Your task to perform on an android device: Open the calendar and show me this week's events? Image 0: 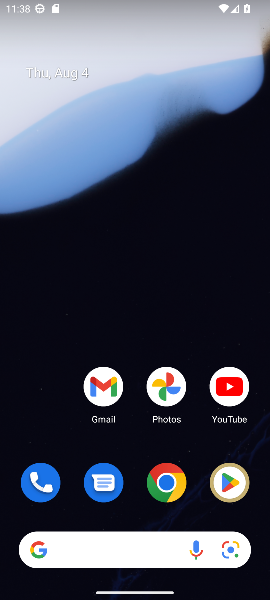
Step 0: drag from (143, 447) to (162, 148)
Your task to perform on an android device: Open the calendar and show me this week's events? Image 1: 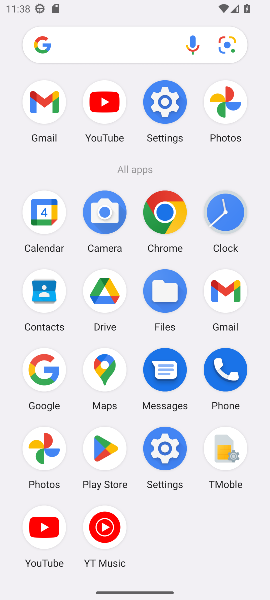
Step 1: click (61, 230)
Your task to perform on an android device: Open the calendar and show me this week's events? Image 2: 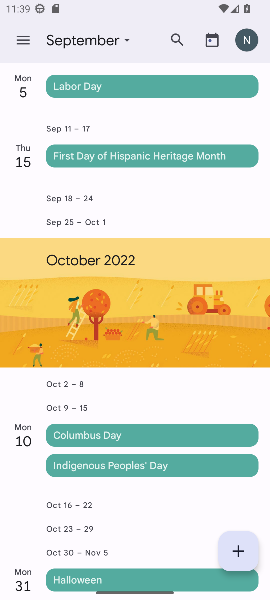
Step 2: click (99, 45)
Your task to perform on an android device: Open the calendar and show me this week's events? Image 3: 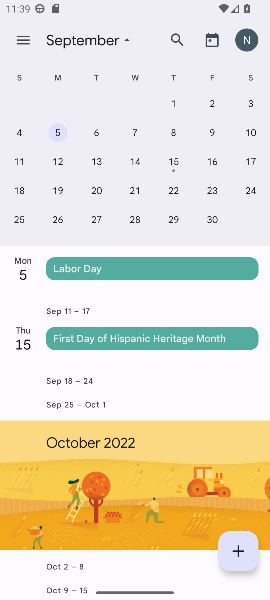
Step 3: drag from (57, 131) to (247, 145)
Your task to perform on an android device: Open the calendar and show me this week's events? Image 4: 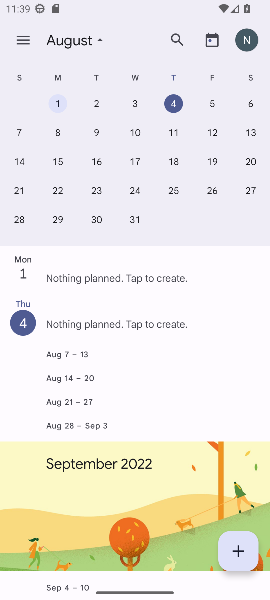
Step 4: click (244, 104)
Your task to perform on an android device: Open the calendar and show me this week's events? Image 5: 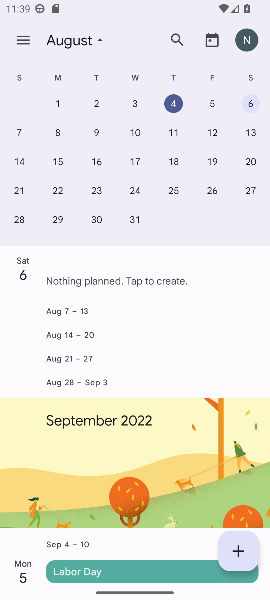
Step 5: task complete